Your task to perform on an android device: Check the weather Image 0: 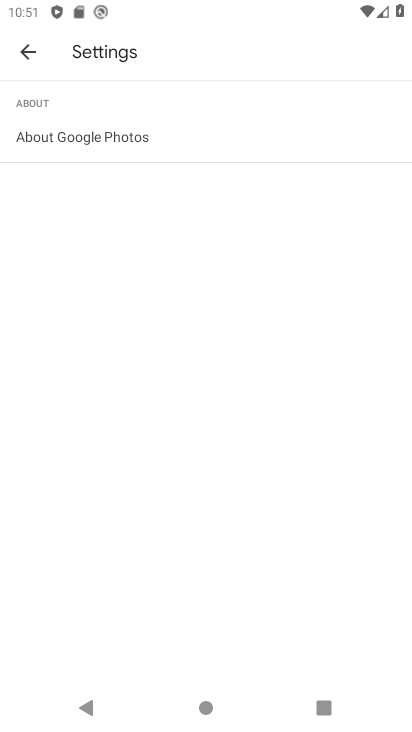
Step 0: press home button
Your task to perform on an android device: Check the weather Image 1: 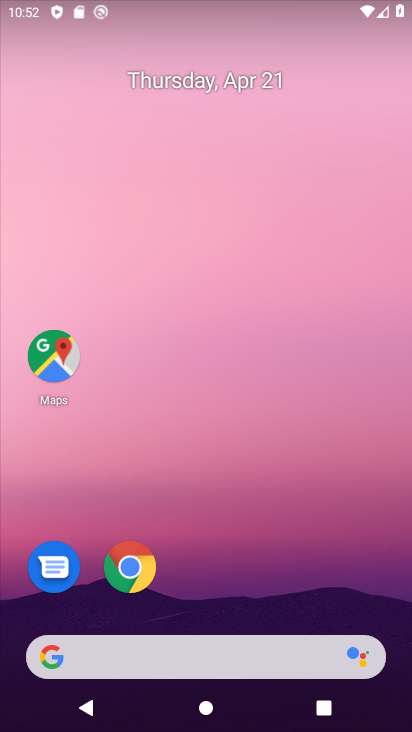
Step 1: drag from (220, 548) to (317, 50)
Your task to perform on an android device: Check the weather Image 2: 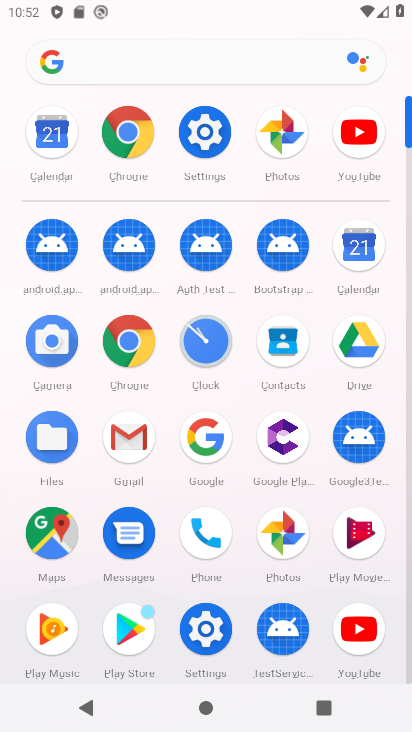
Step 2: click (130, 67)
Your task to perform on an android device: Check the weather Image 3: 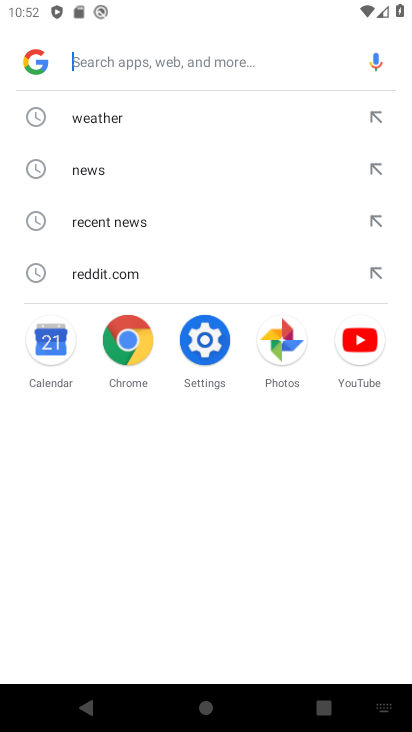
Step 3: click (131, 123)
Your task to perform on an android device: Check the weather Image 4: 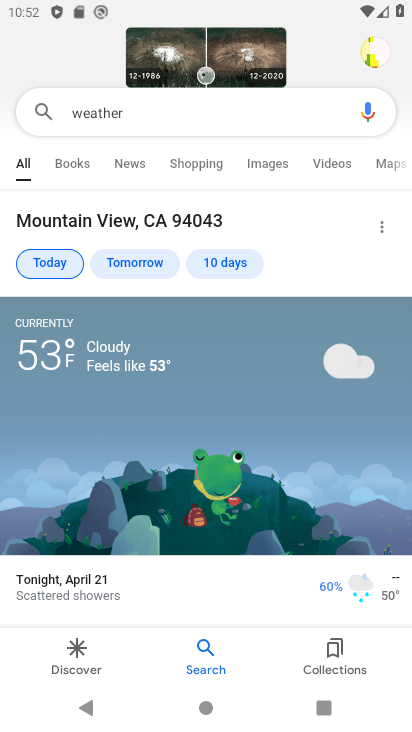
Step 4: task complete